Your task to perform on an android device: delete the emails in spam in the gmail app Image 0: 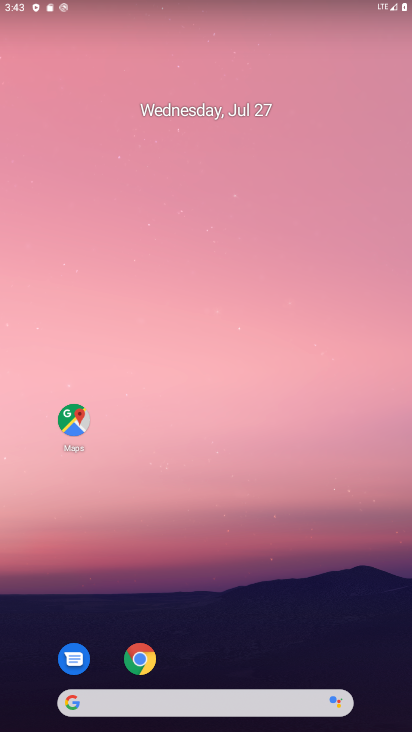
Step 0: drag from (236, 629) to (228, 52)
Your task to perform on an android device: delete the emails in spam in the gmail app Image 1: 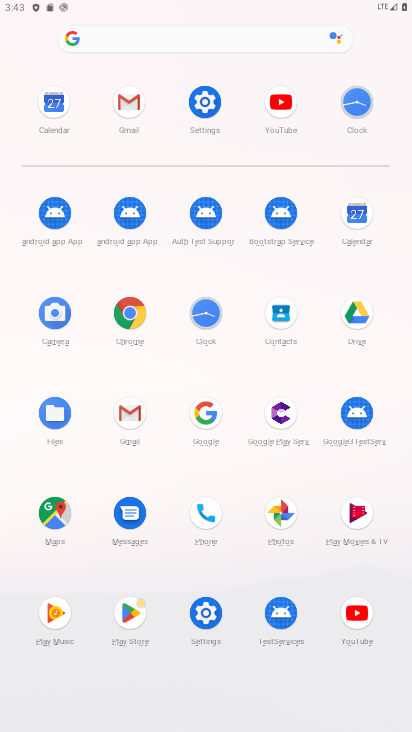
Step 1: click (116, 416)
Your task to perform on an android device: delete the emails in spam in the gmail app Image 2: 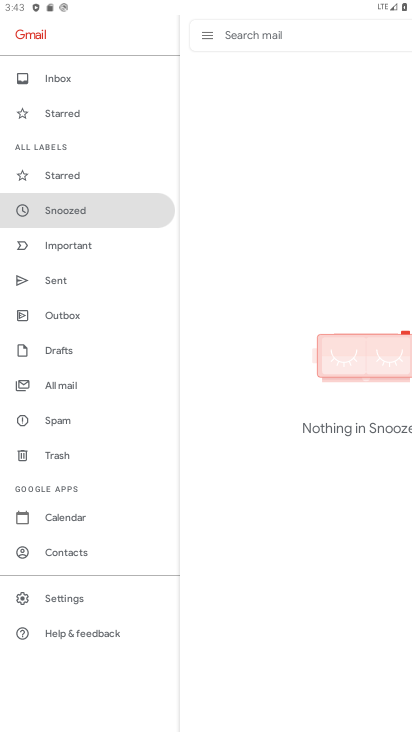
Step 2: click (54, 428)
Your task to perform on an android device: delete the emails in spam in the gmail app Image 3: 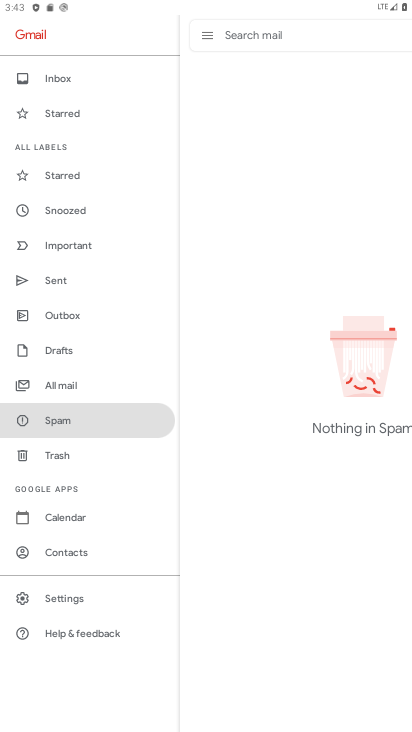
Step 3: task complete